Your task to perform on an android device: turn on location history Image 0: 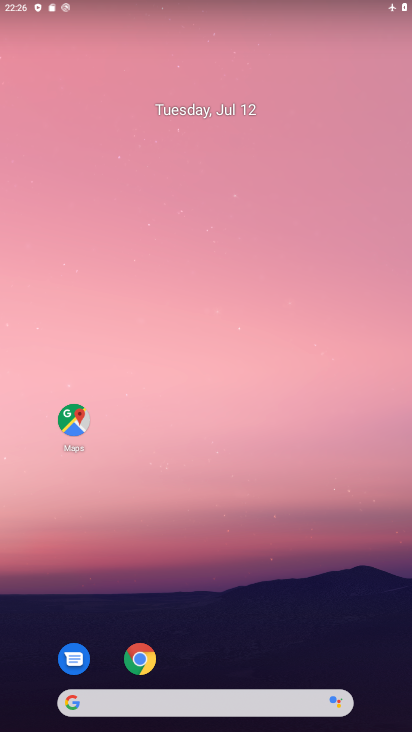
Step 0: drag from (222, 606) to (208, 243)
Your task to perform on an android device: turn on location history Image 1: 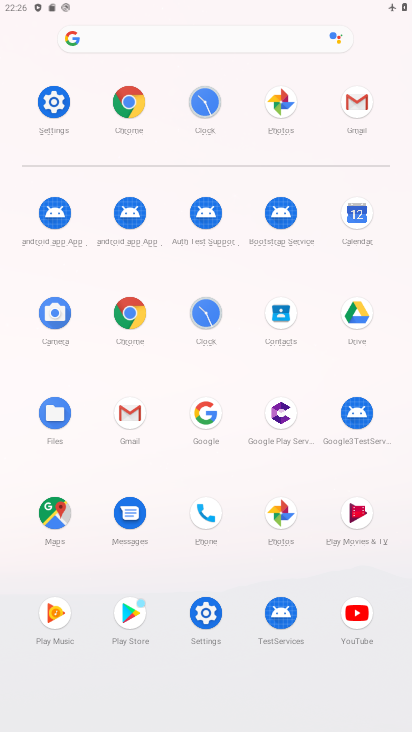
Step 1: click (46, 111)
Your task to perform on an android device: turn on location history Image 2: 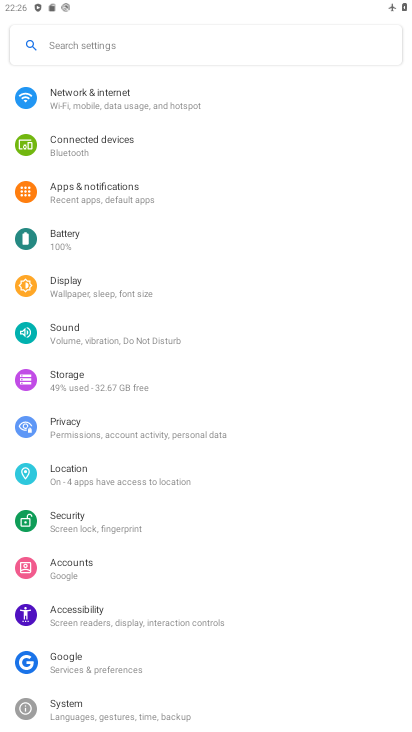
Step 2: click (121, 469)
Your task to perform on an android device: turn on location history Image 3: 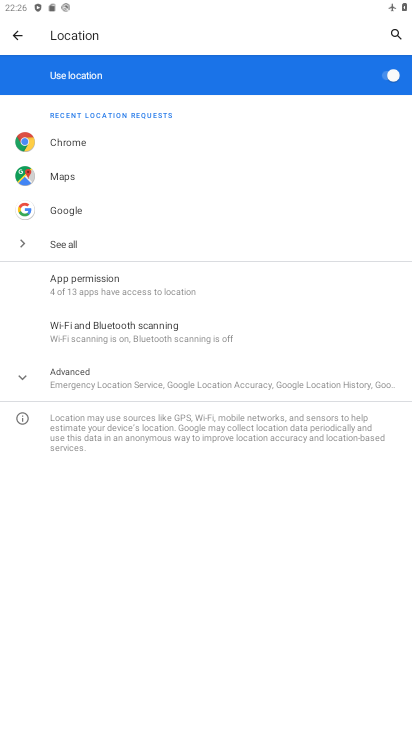
Step 3: click (110, 379)
Your task to perform on an android device: turn on location history Image 4: 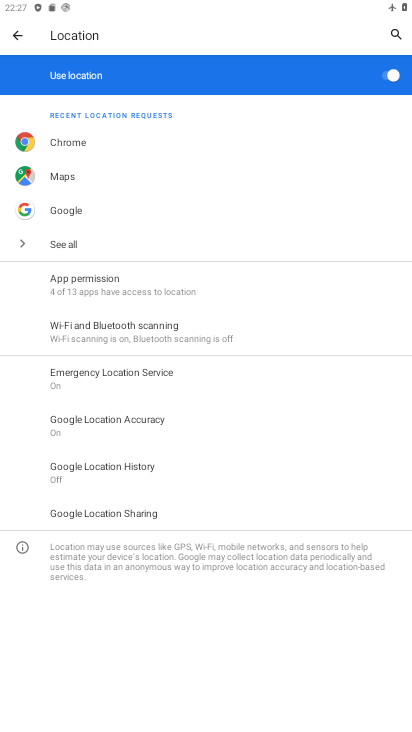
Step 4: click (108, 446)
Your task to perform on an android device: turn on location history Image 5: 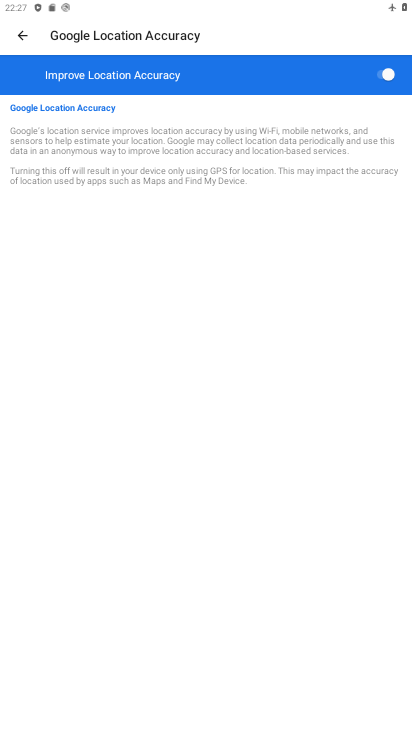
Step 5: press back button
Your task to perform on an android device: turn on location history Image 6: 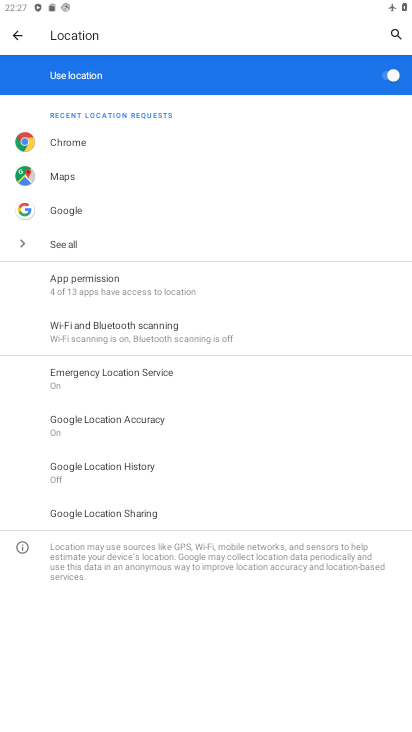
Step 6: click (112, 464)
Your task to perform on an android device: turn on location history Image 7: 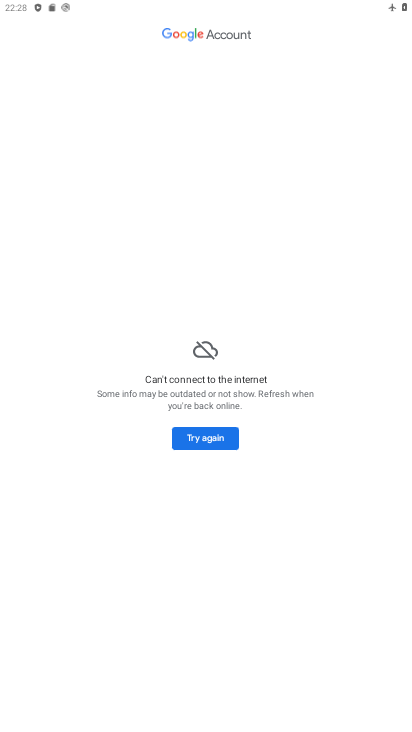
Step 7: task complete